Your task to perform on an android device: clear history in the chrome app Image 0: 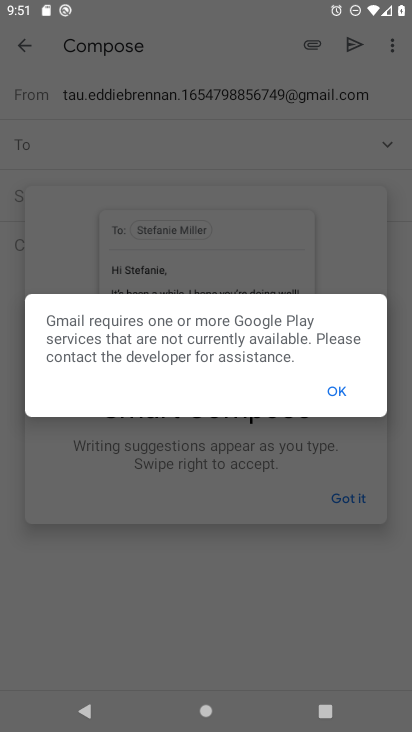
Step 0: press home button
Your task to perform on an android device: clear history in the chrome app Image 1: 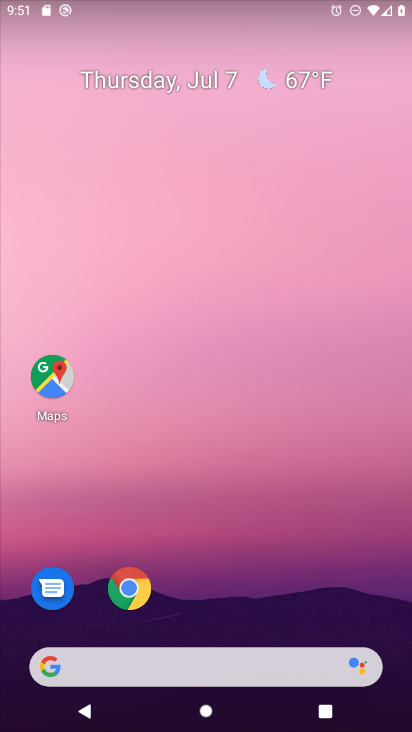
Step 1: click (131, 589)
Your task to perform on an android device: clear history in the chrome app Image 2: 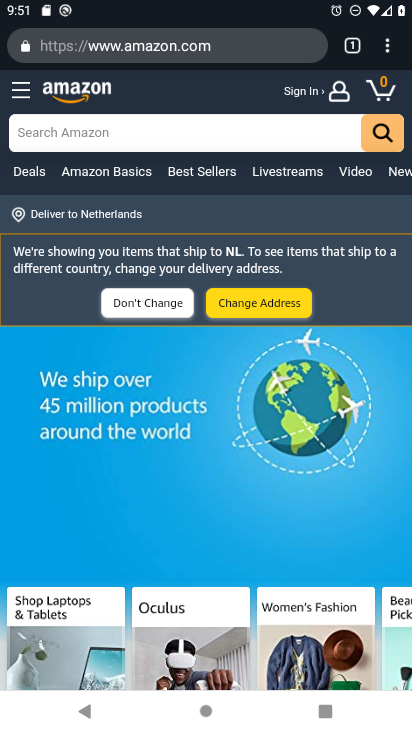
Step 2: click (389, 50)
Your task to perform on an android device: clear history in the chrome app Image 3: 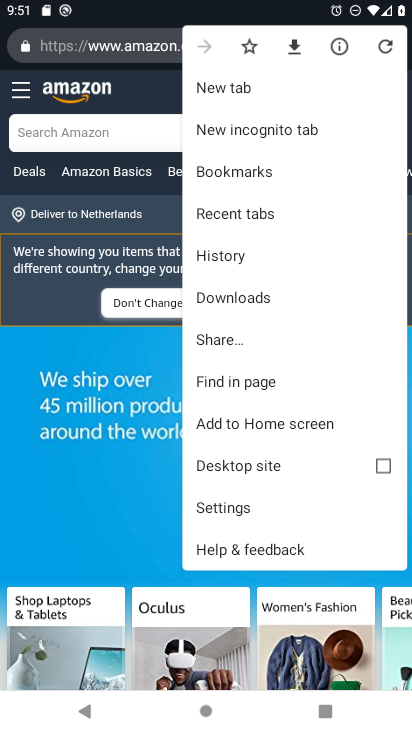
Step 3: click (224, 253)
Your task to perform on an android device: clear history in the chrome app Image 4: 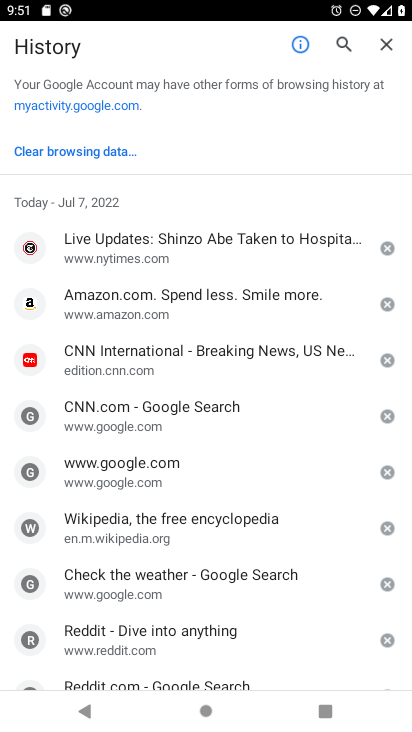
Step 4: click (123, 152)
Your task to perform on an android device: clear history in the chrome app Image 5: 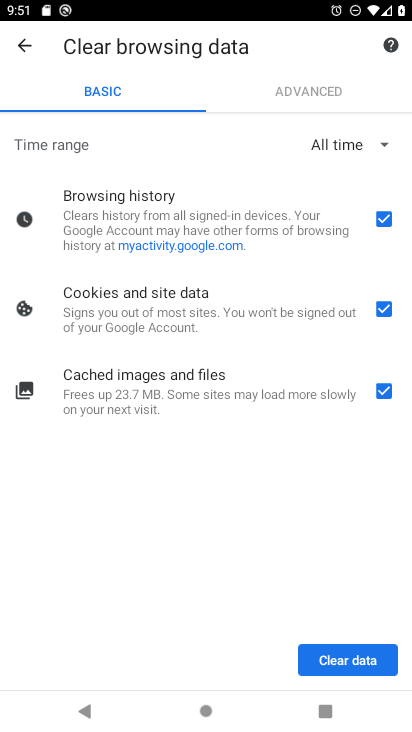
Step 5: click (357, 665)
Your task to perform on an android device: clear history in the chrome app Image 6: 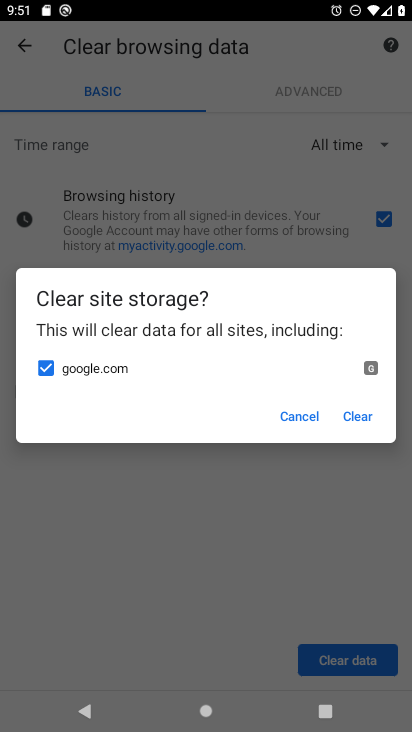
Step 6: click (363, 415)
Your task to perform on an android device: clear history in the chrome app Image 7: 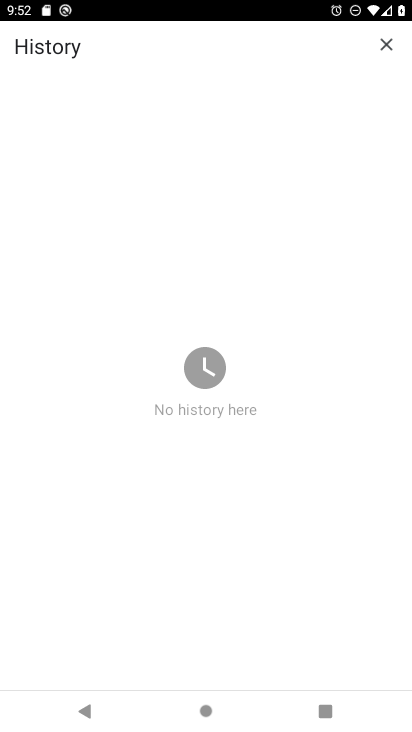
Step 7: task complete